Your task to perform on an android device: Show the shopping cart on bestbuy.com. Search for "logitech g933" on bestbuy.com, select the first entry, add it to the cart, then select checkout. Image 0: 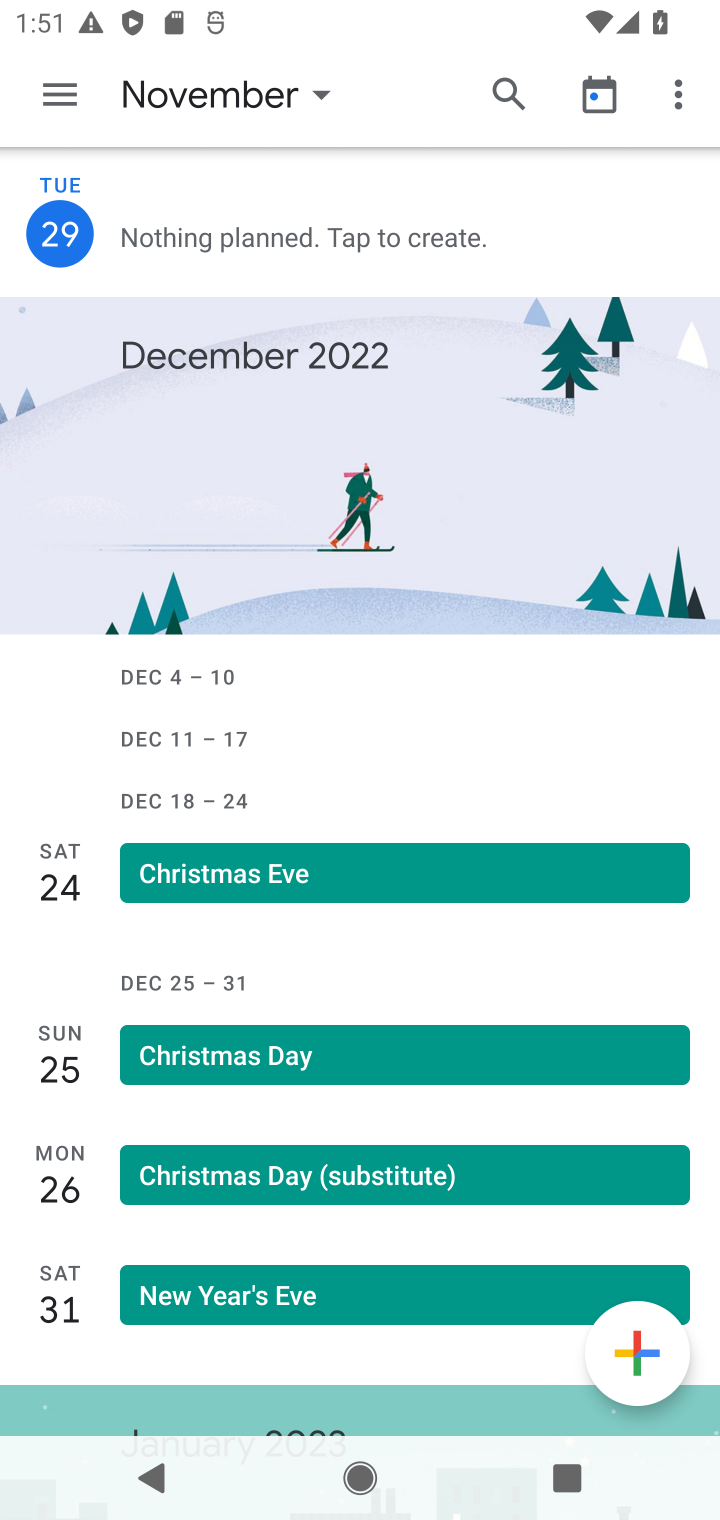
Step 0: press home button
Your task to perform on an android device: Show the shopping cart on bestbuy.com. Search for "logitech g933" on bestbuy.com, select the first entry, add it to the cart, then select checkout. Image 1: 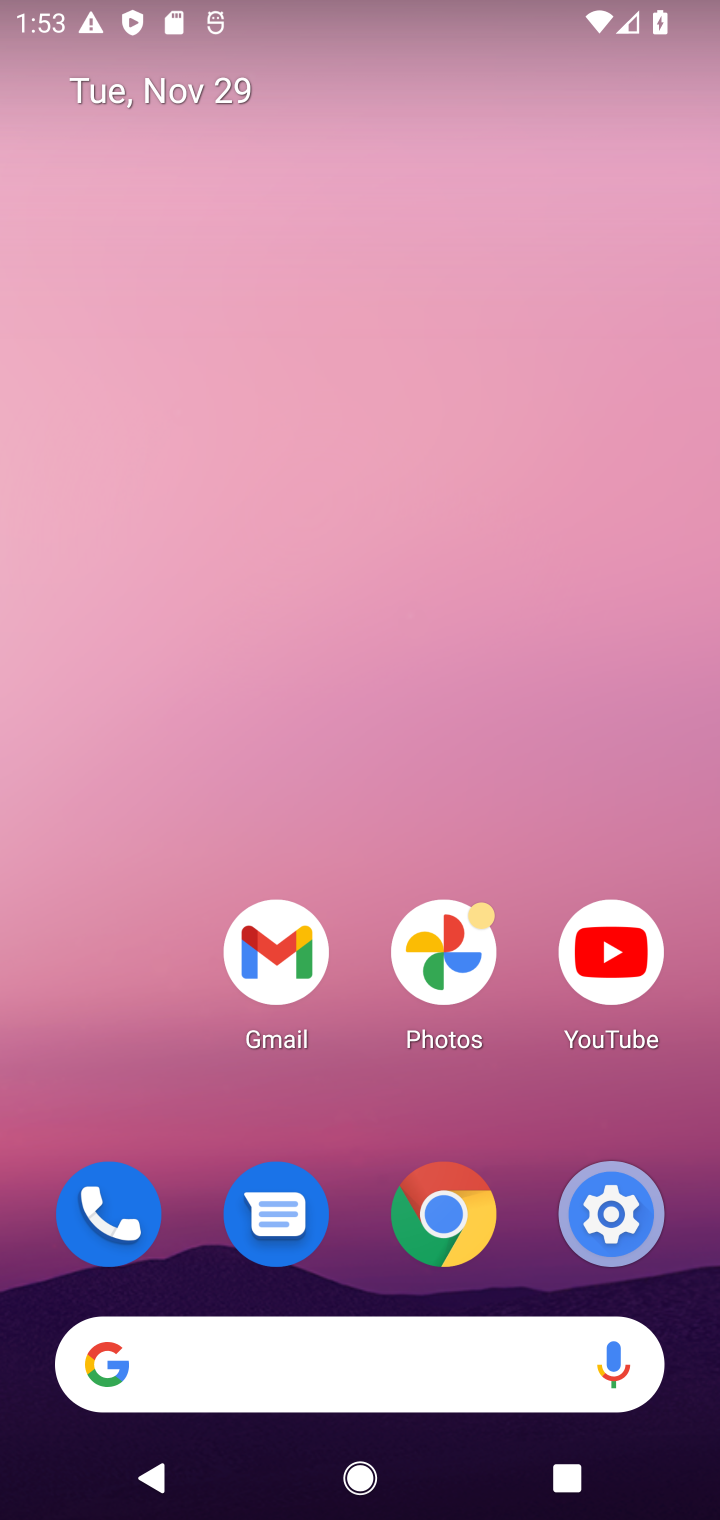
Step 1: click (222, 1370)
Your task to perform on an android device: Show the shopping cart on bestbuy.com. Search for "logitech g933" on bestbuy.com, select the first entry, add it to the cart, then select checkout. Image 2: 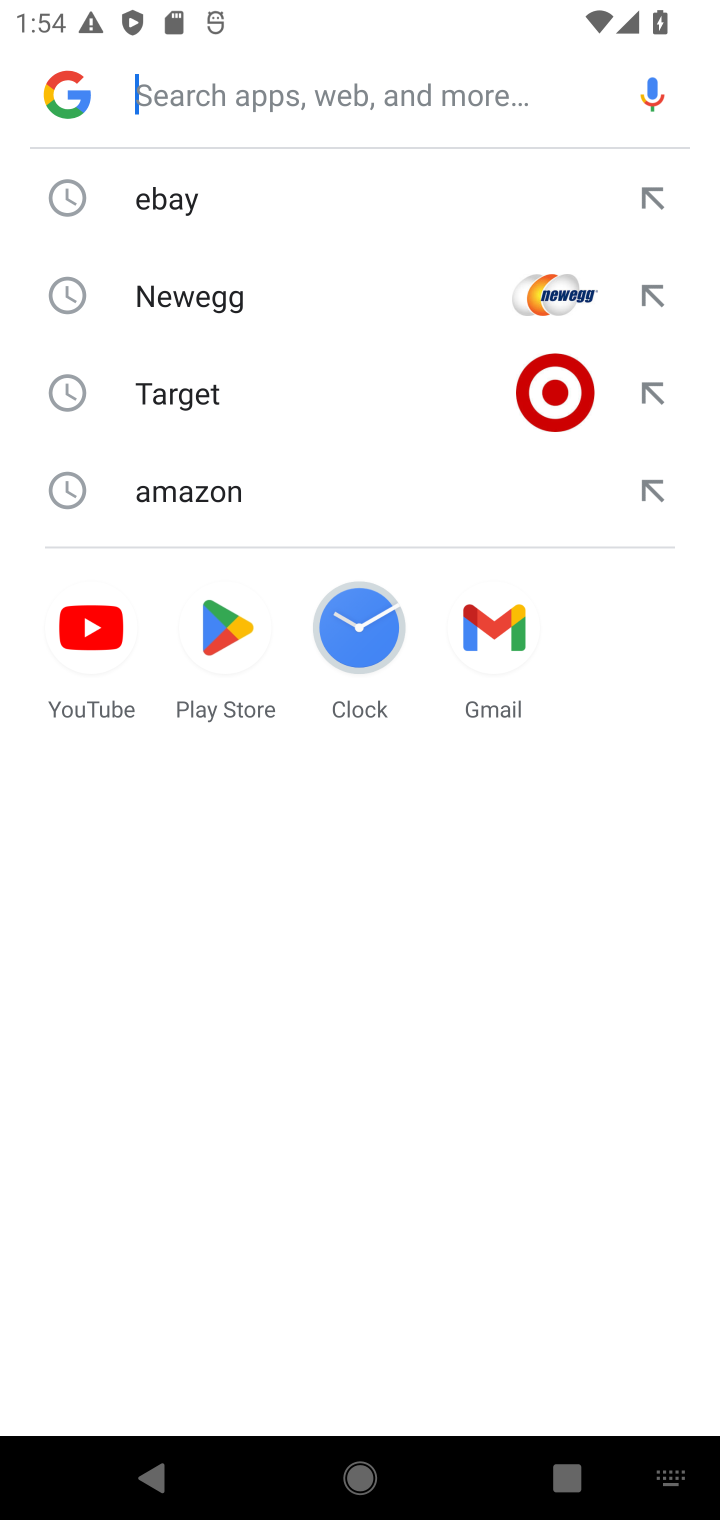
Step 2: type "bestbuy"
Your task to perform on an android device: Show the shopping cart on bestbuy.com. Search for "logitech g933" on bestbuy.com, select the first entry, add it to the cart, then select checkout. Image 3: 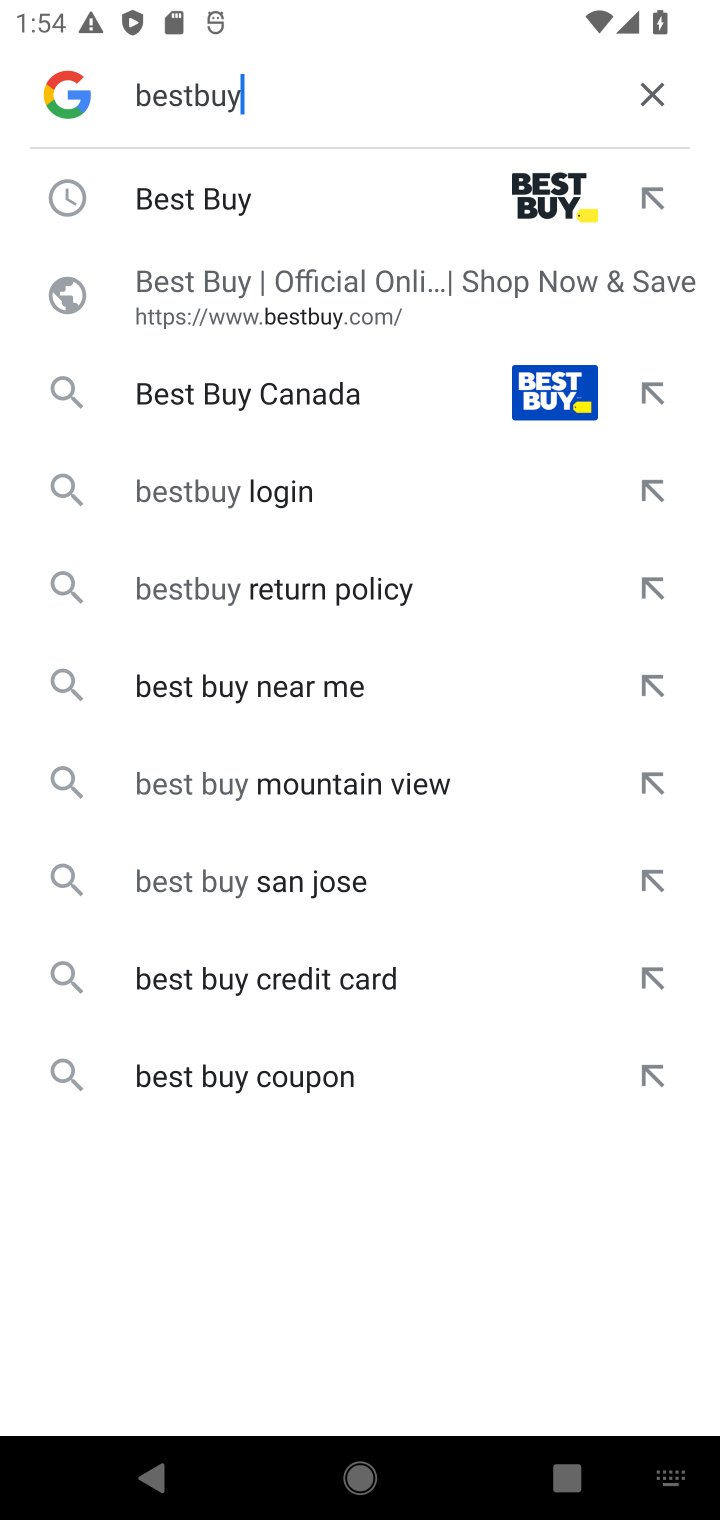
Step 3: click (293, 225)
Your task to perform on an android device: Show the shopping cart on bestbuy.com. Search for "logitech g933" on bestbuy.com, select the first entry, add it to the cart, then select checkout. Image 4: 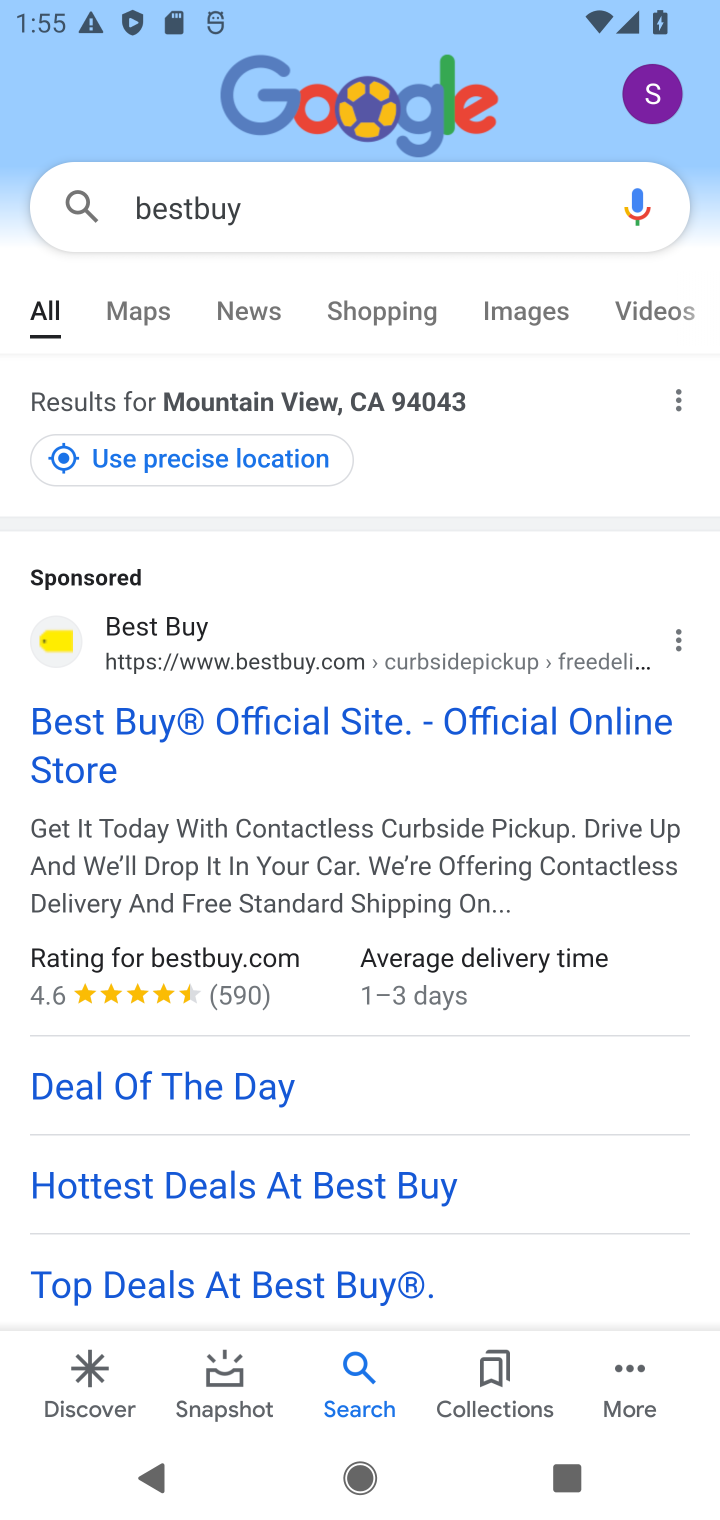
Step 4: click (228, 773)
Your task to perform on an android device: Show the shopping cart on bestbuy.com. Search for "logitech g933" on bestbuy.com, select the first entry, add it to the cart, then select checkout. Image 5: 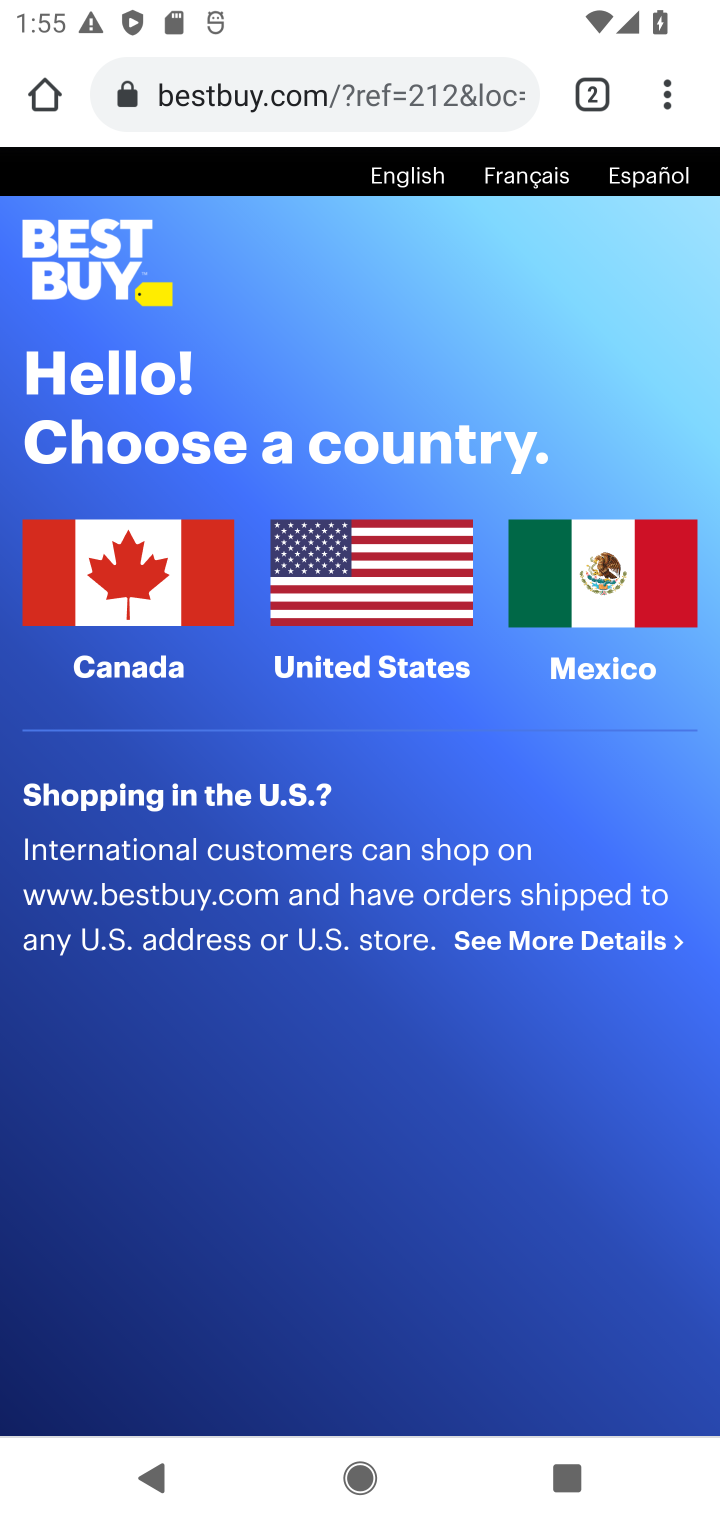
Step 5: click (80, 548)
Your task to perform on an android device: Show the shopping cart on bestbuy.com. Search for "logitech g933" on bestbuy.com, select the first entry, add it to the cart, then select checkout. Image 6: 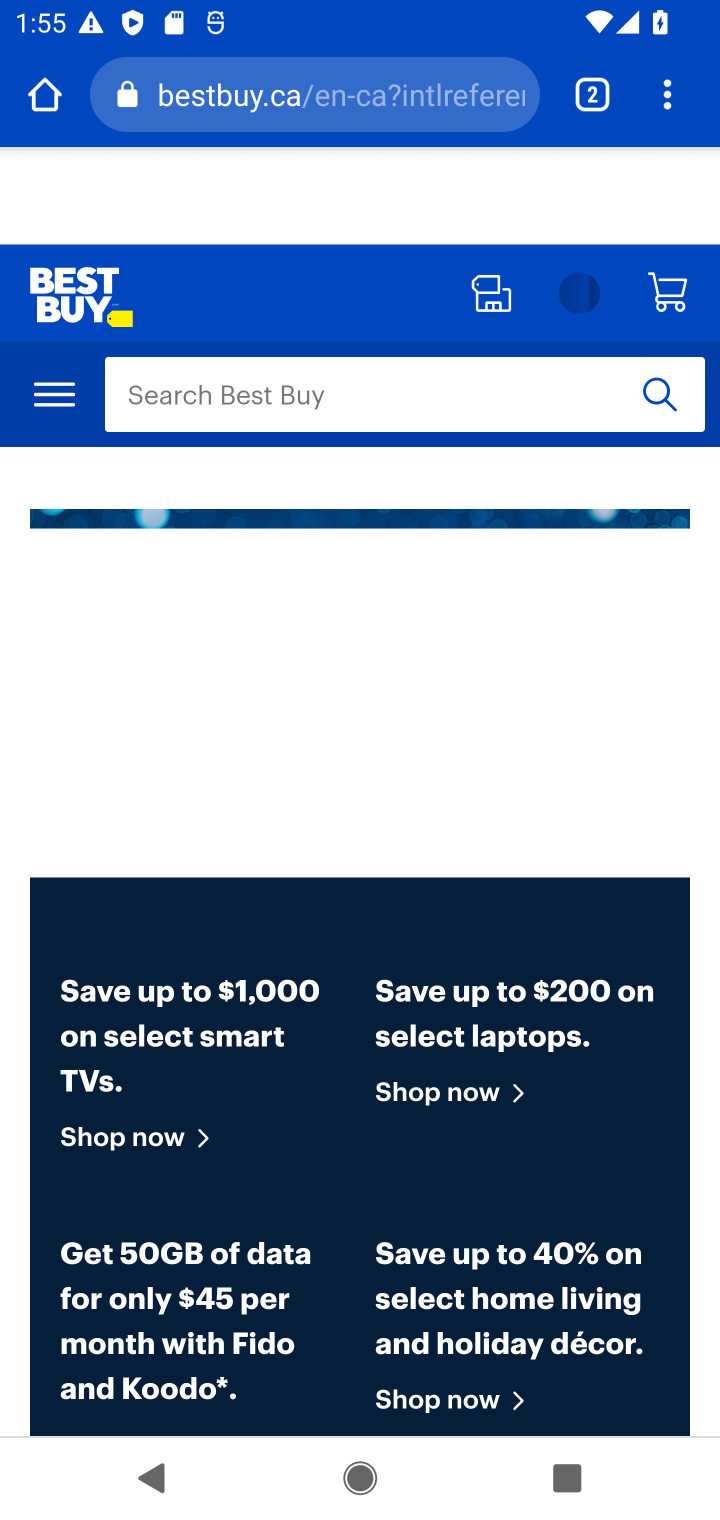
Step 6: click (402, 390)
Your task to perform on an android device: Show the shopping cart on bestbuy.com. Search for "logitech g933" on bestbuy.com, select the first entry, add it to the cart, then select checkout. Image 7: 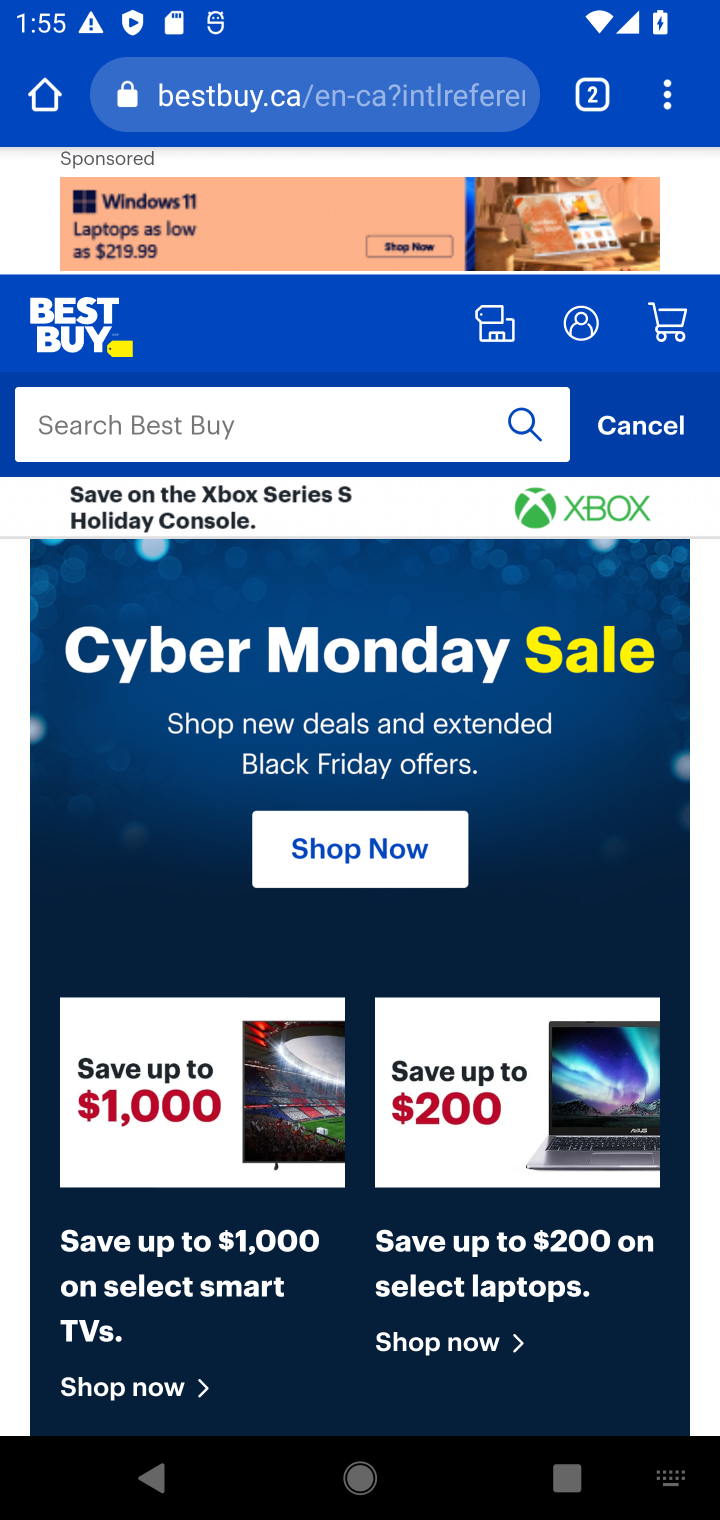
Step 7: type "logitech g933"
Your task to perform on an android device: Show the shopping cart on bestbuy.com. Search for "logitech g933" on bestbuy.com, select the first entry, add it to the cart, then select checkout. Image 8: 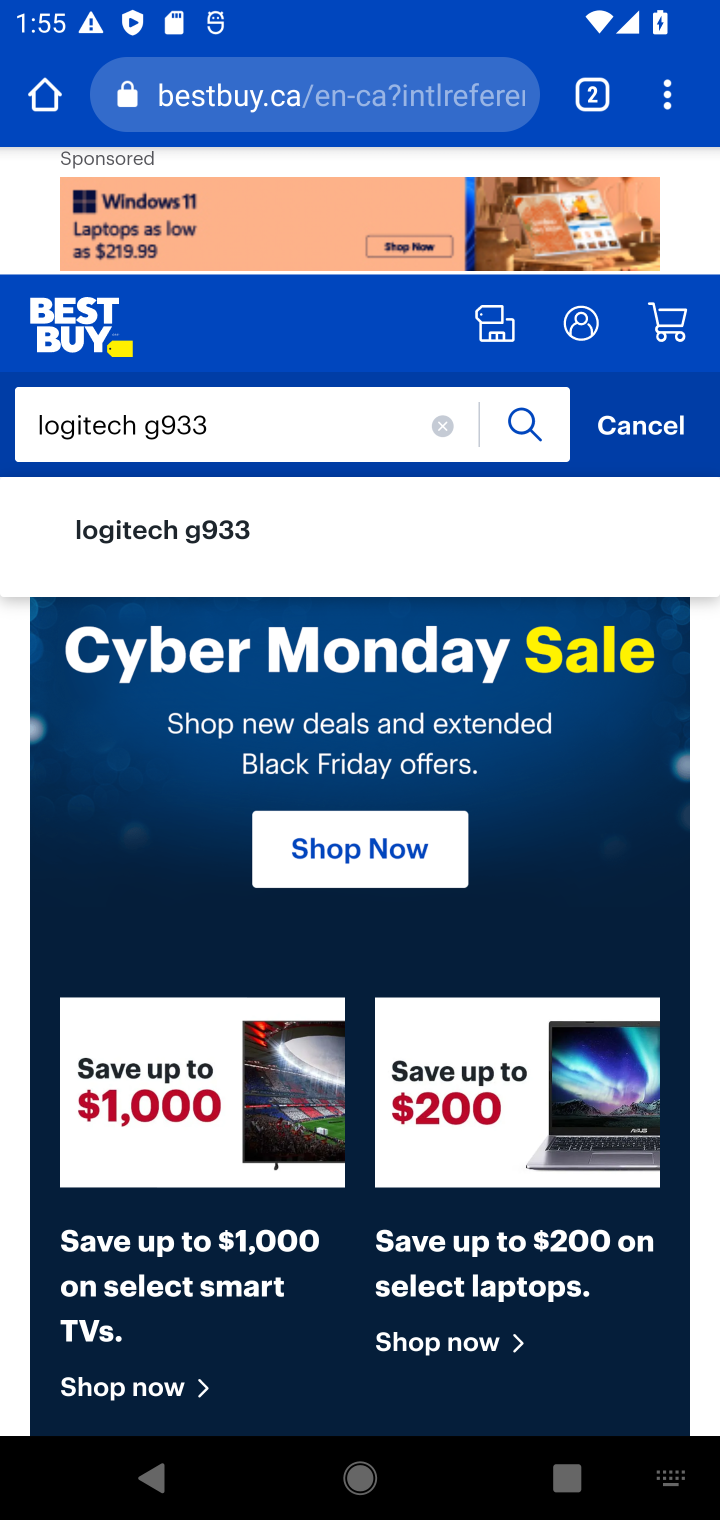
Step 8: click (534, 416)
Your task to perform on an android device: Show the shopping cart on bestbuy.com. Search for "logitech g933" on bestbuy.com, select the first entry, add it to the cart, then select checkout. Image 9: 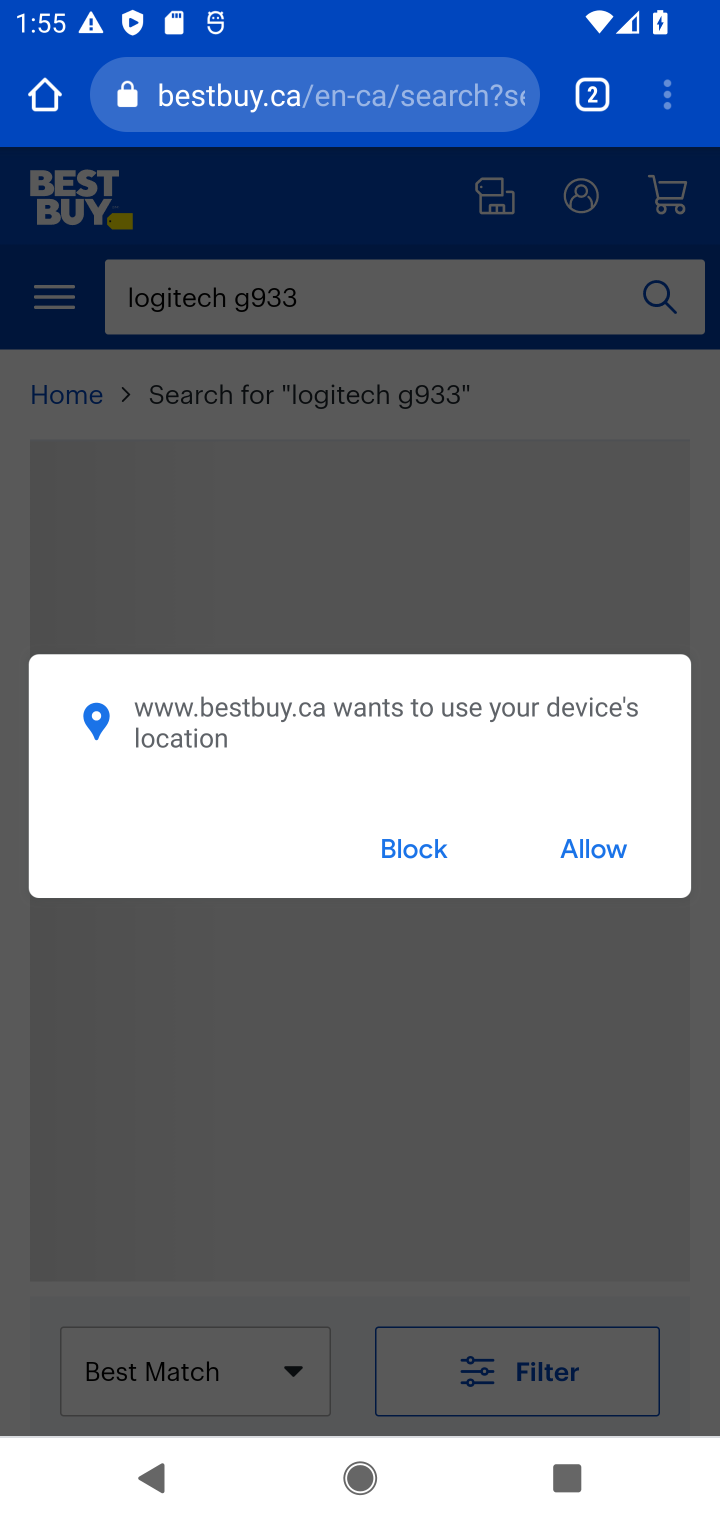
Step 9: click (606, 854)
Your task to perform on an android device: Show the shopping cart on bestbuy.com. Search for "logitech g933" on bestbuy.com, select the first entry, add it to the cart, then select checkout. Image 10: 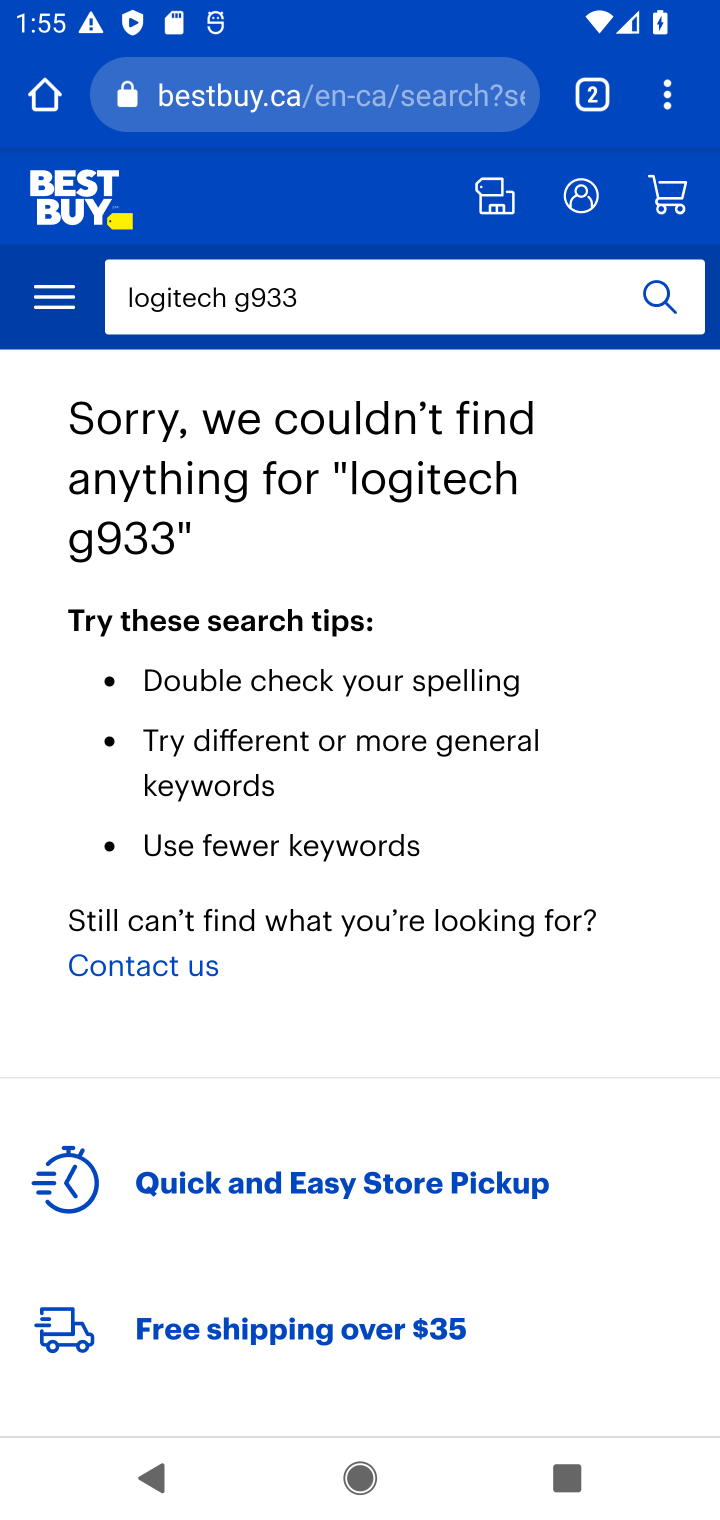
Step 10: task complete